Your task to perform on an android device: Open the Play Movies app and select the watchlist tab. Image 0: 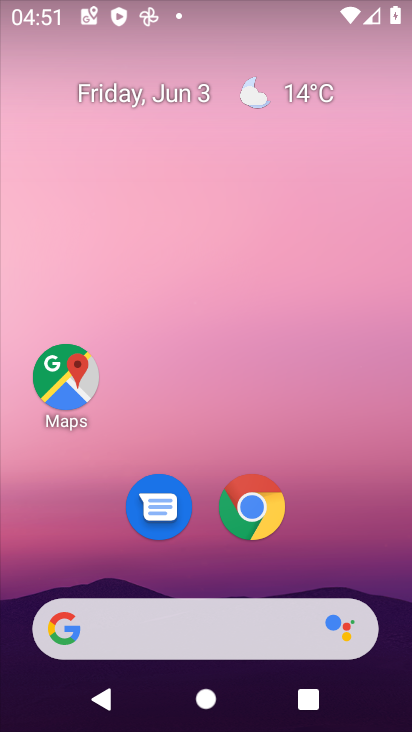
Step 0: drag from (346, 571) to (303, 96)
Your task to perform on an android device: Open the Play Movies app and select the watchlist tab. Image 1: 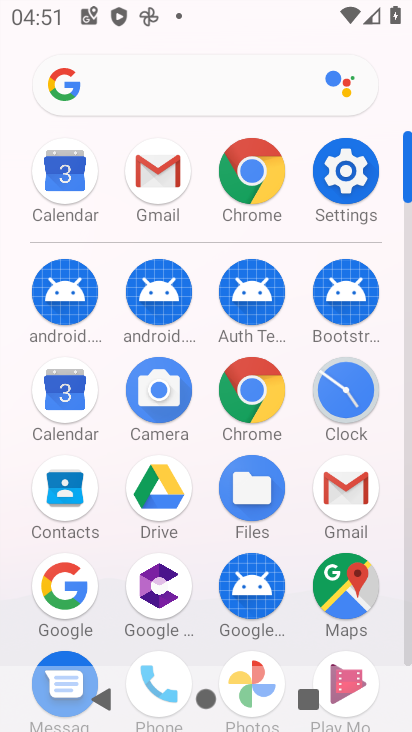
Step 1: click (345, 670)
Your task to perform on an android device: Open the Play Movies app and select the watchlist tab. Image 2: 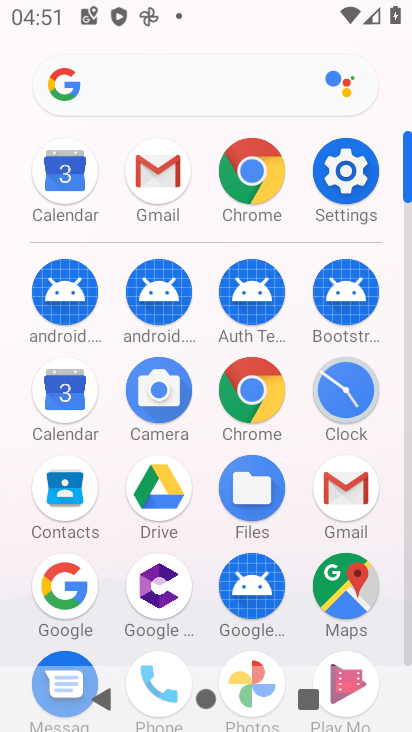
Step 2: drag from (304, 632) to (325, 197)
Your task to perform on an android device: Open the Play Movies app and select the watchlist tab. Image 3: 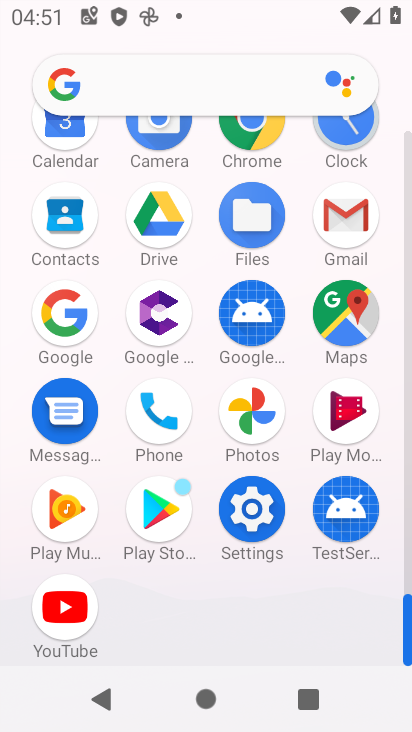
Step 3: click (343, 413)
Your task to perform on an android device: Open the Play Movies app and select the watchlist tab. Image 4: 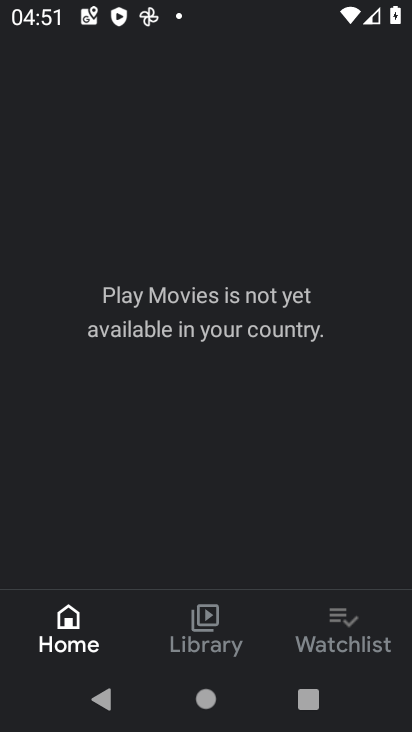
Step 4: click (319, 648)
Your task to perform on an android device: Open the Play Movies app and select the watchlist tab. Image 5: 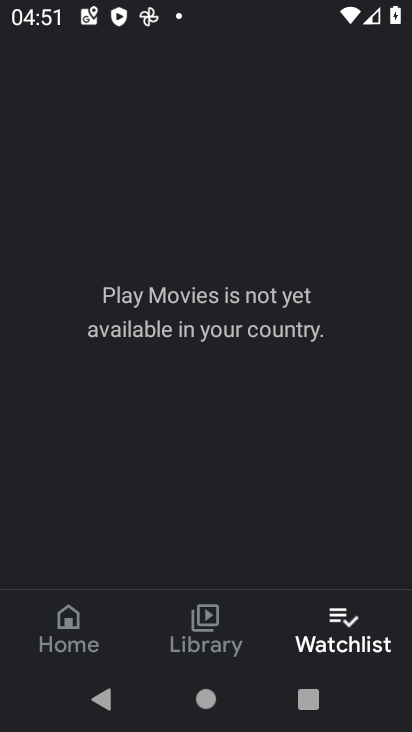
Step 5: task complete